Your task to perform on an android device: Search for pizza restaurants on Maps Image 0: 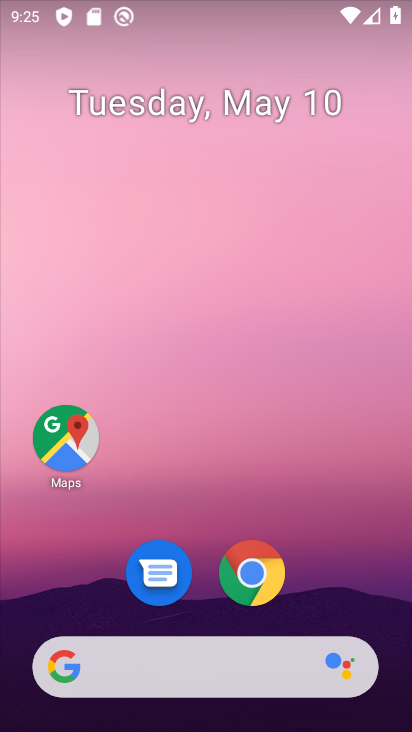
Step 0: click (63, 451)
Your task to perform on an android device: Search for pizza restaurants on Maps Image 1: 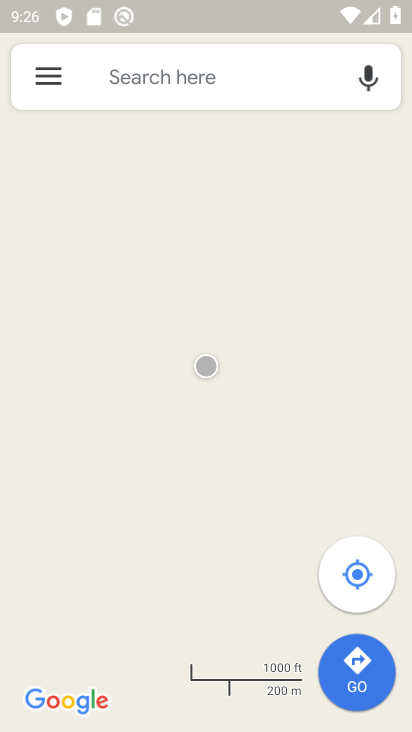
Step 1: click (146, 84)
Your task to perform on an android device: Search for pizza restaurants on Maps Image 2: 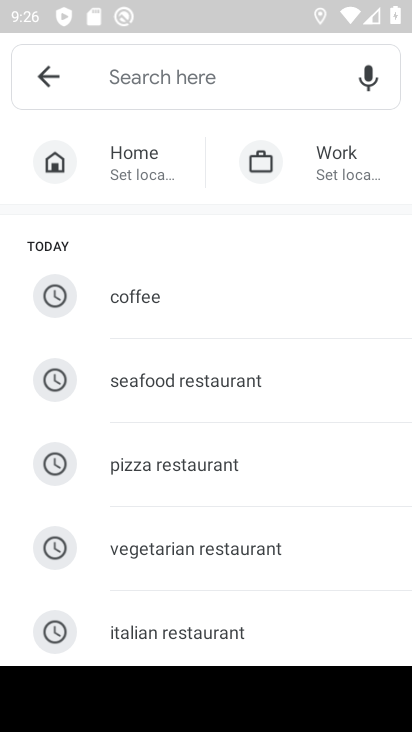
Step 2: type "pizza"
Your task to perform on an android device: Search for pizza restaurants on Maps Image 3: 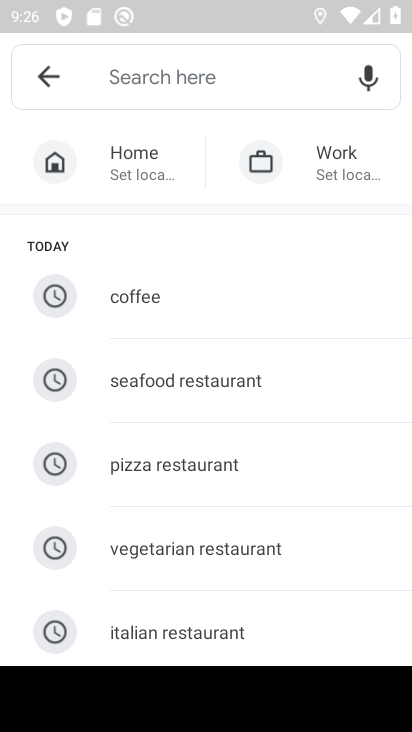
Step 3: click (204, 464)
Your task to perform on an android device: Search for pizza restaurants on Maps Image 4: 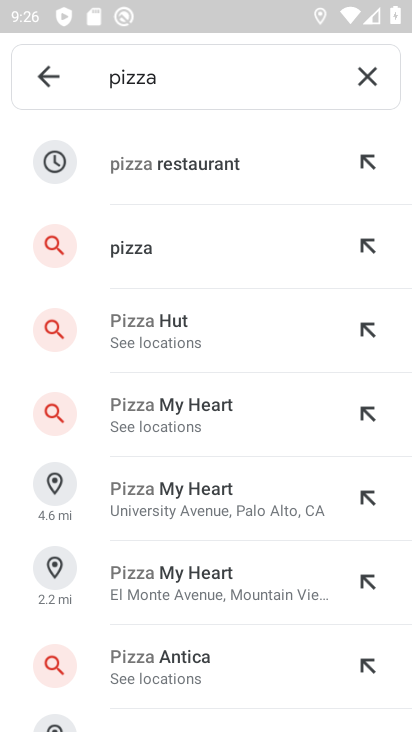
Step 4: click (167, 163)
Your task to perform on an android device: Search for pizza restaurants on Maps Image 5: 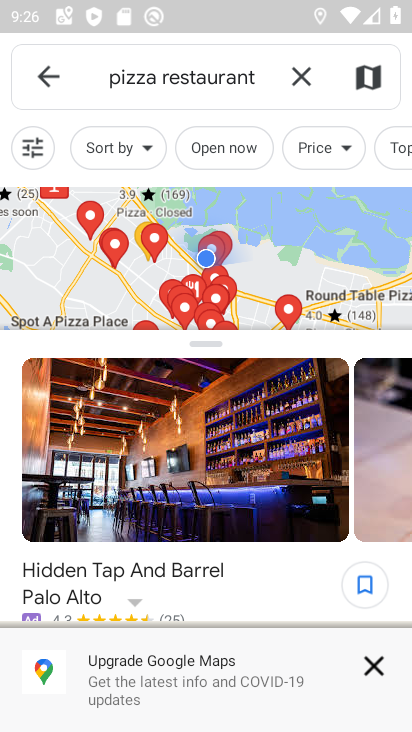
Step 5: task complete